Your task to perform on an android device: delete browsing data in the chrome app Image 0: 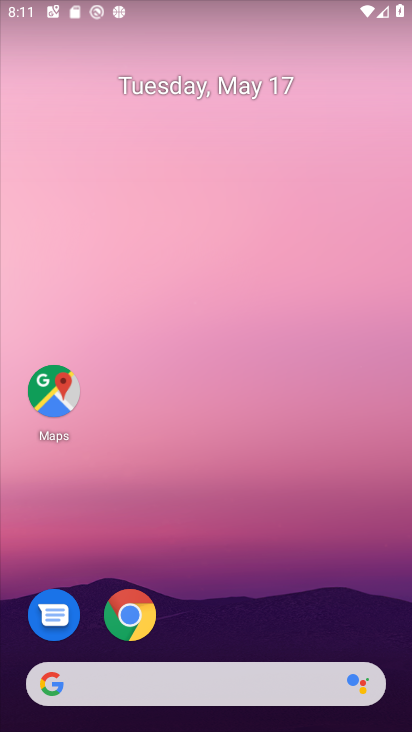
Step 0: click (128, 622)
Your task to perform on an android device: delete browsing data in the chrome app Image 1: 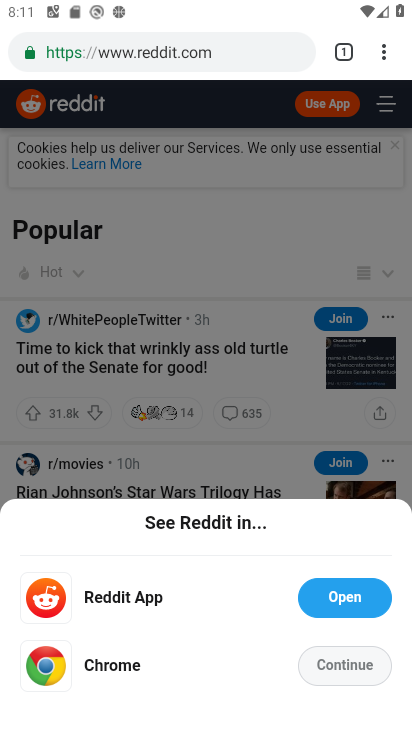
Step 1: drag from (381, 58) to (260, 295)
Your task to perform on an android device: delete browsing data in the chrome app Image 2: 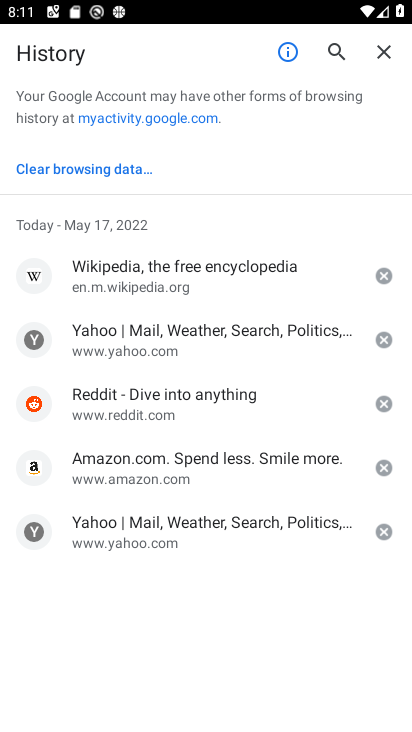
Step 2: click (74, 169)
Your task to perform on an android device: delete browsing data in the chrome app Image 3: 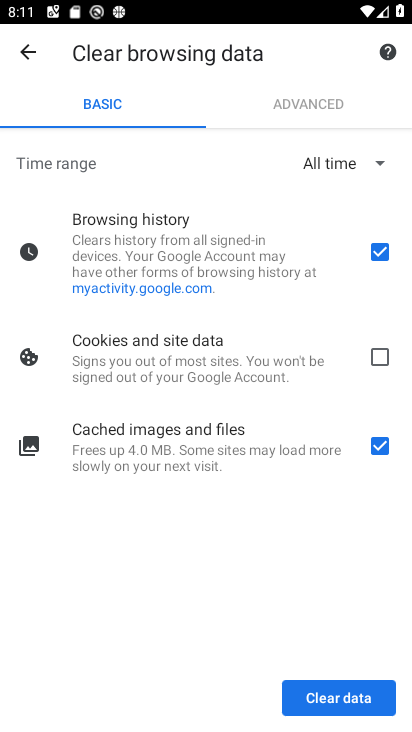
Step 3: click (387, 447)
Your task to perform on an android device: delete browsing data in the chrome app Image 4: 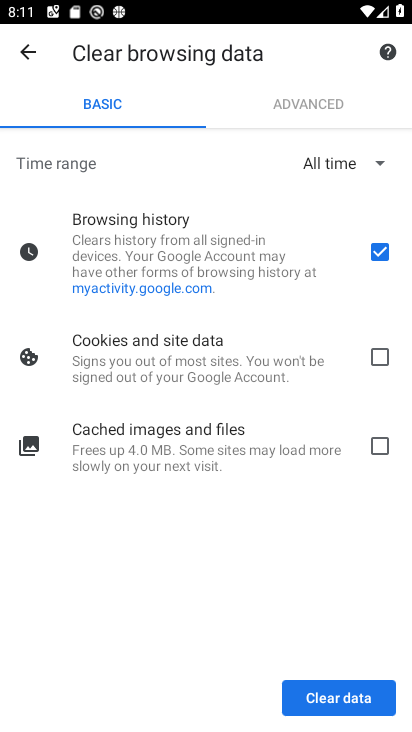
Step 4: click (359, 708)
Your task to perform on an android device: delete browsing data in the chrome app Image 5: 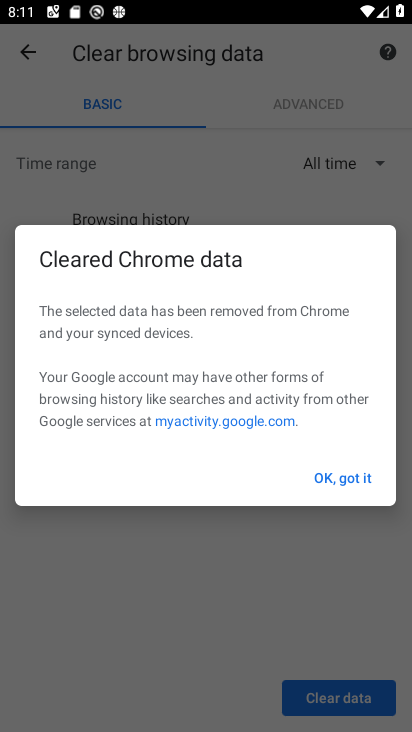
Step 5: click (345, 473)
Your task to perform on an android device: delete browsing data in the chrome app Image 6: 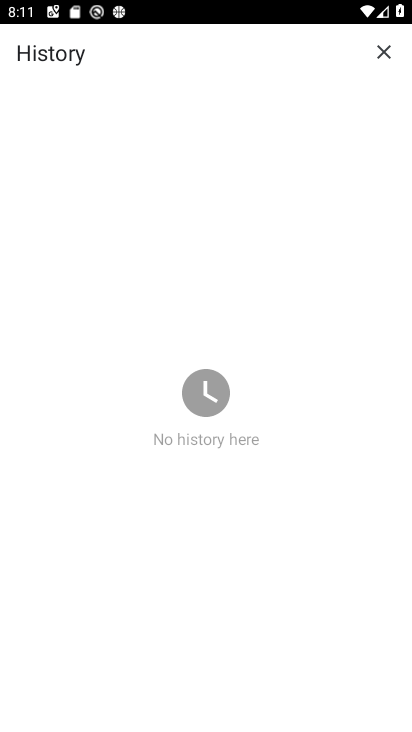
Step 6: task complete